Your task to perform on an android device: Open the Play Movies app and select the watchlist tab. Image 0: 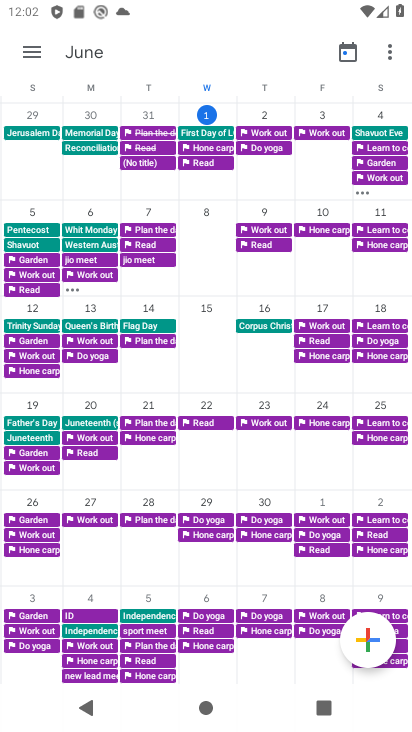
Step 0: press home button
Your task to perform on an android device: Open the Play Movies app and select the watchlist tab. Image 1: 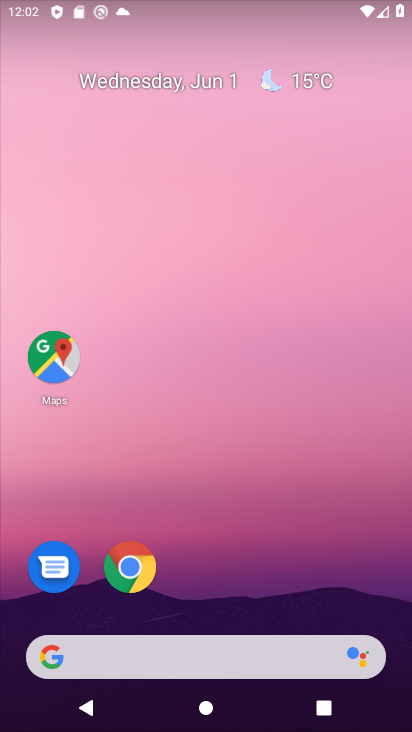
Step 1: drag from (229, 632) to (272, 267)
Your task to perform on an android device: Open the Play Movies app and select the watchlist tab. Image 2: 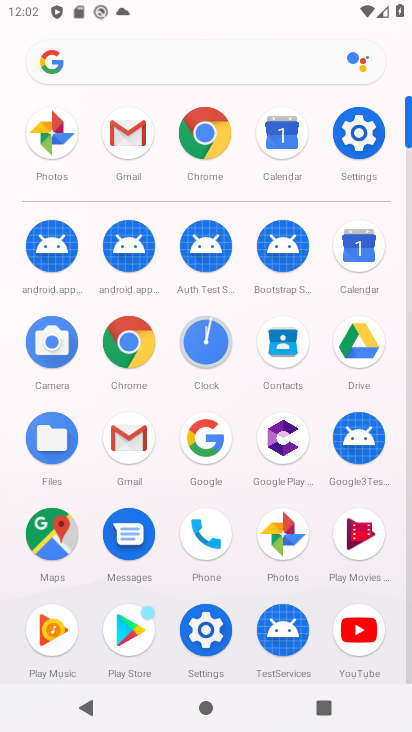
Step 2: click (378, 538)
Your task to perform on an android device: Open the Play Movies app and select the watchlist tab. Image 3: 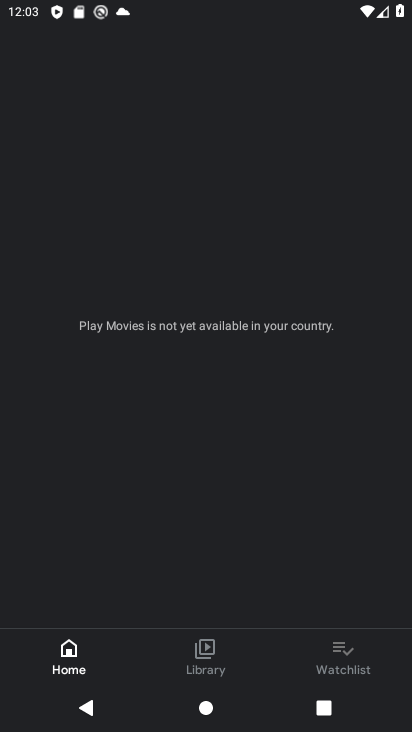
Step 3: click (302, 638)
Your task to perform on an android device: Open the Play Movies app and select the watchlist tab. Image 4: 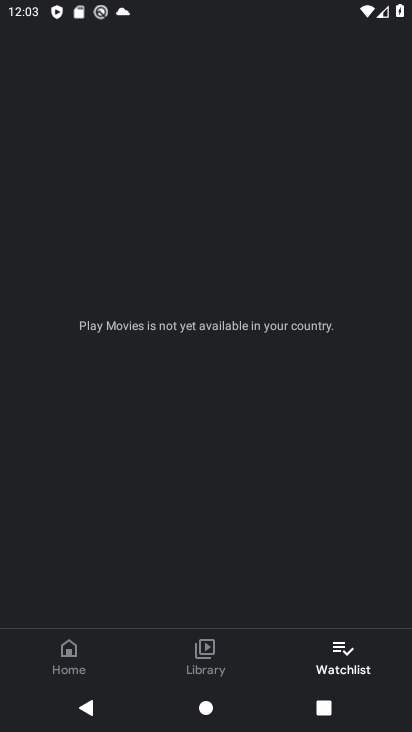
Step 4: task complete